Your task to perform on an android device: Add "usb-b" to the cart on costco.com, then select checkout. Image 0: 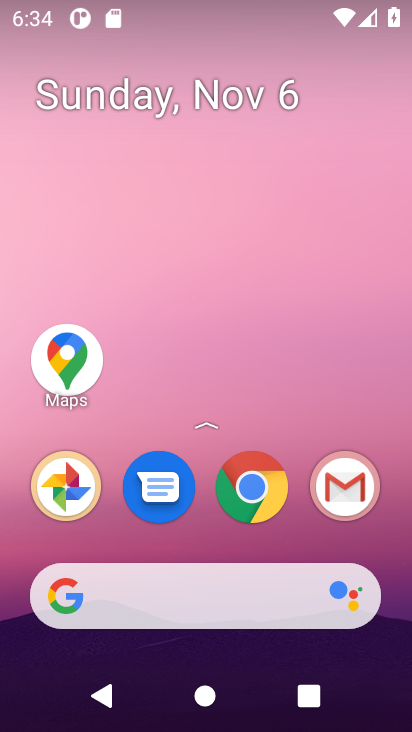
Step 0: click (260, 488)
Your task to perform on an android device: Add "usb-b" to the cart on costco.com, then select checkout. Image 1: 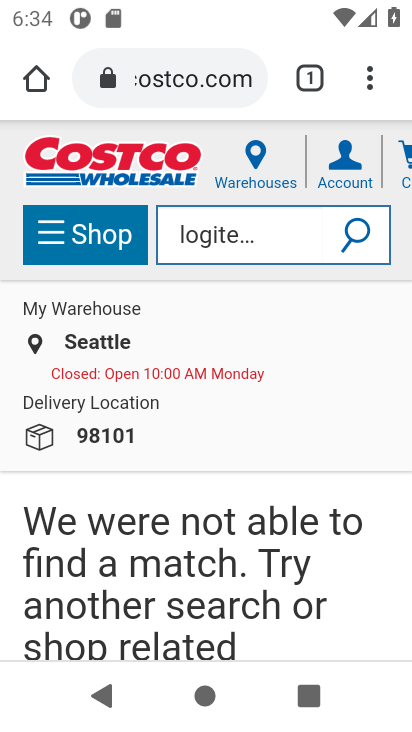
Step 1: click (226, 231)
Your task to perform on an android device: Add "usb-b" to the cart on costco.com, then select checkout. Image 2: 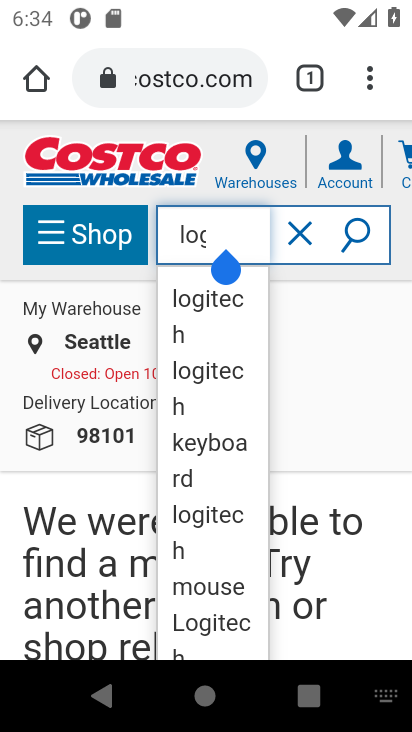
Step 2: click (288, 237)
Your task to perform on an android device: Add "usb-b" to the cart on costco.com, then select checkout. Image 3: 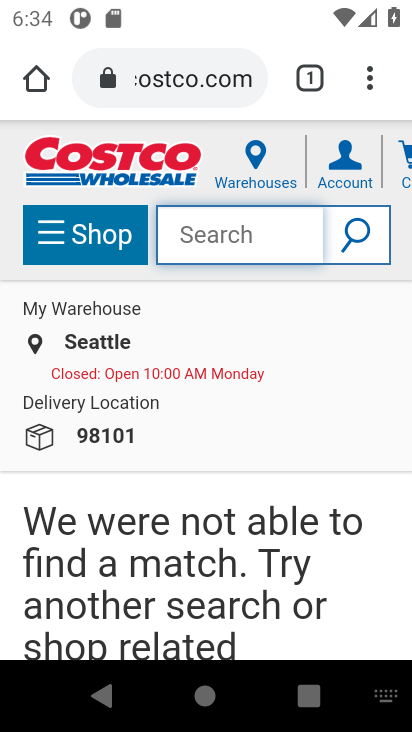
Step 3: type "usb-b"
Your task to perform on an android device: Add "usb-b" to the cart on costco.com, then select checkout. Image 4: 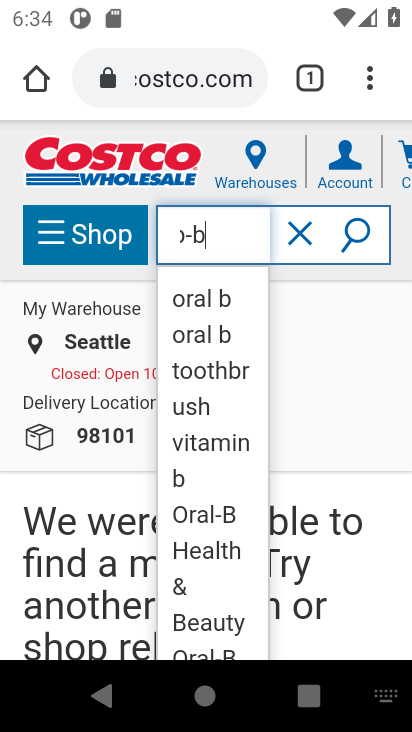
Step 4: click (341, 228)
Your task to perform on an android device: Add "usb-b" to the cart on costco.com, then select checkout. Image 5: 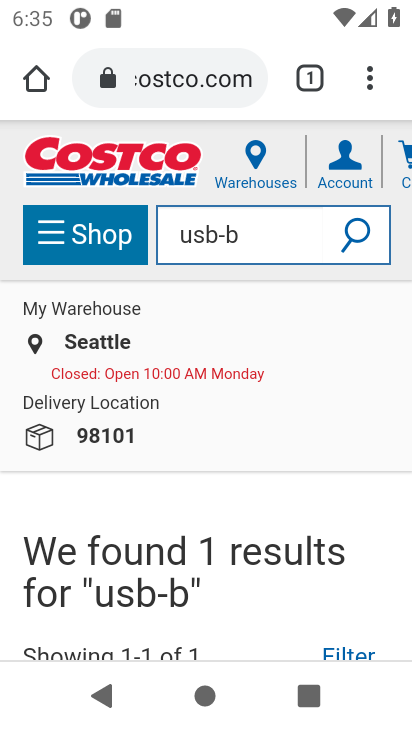
Step 5: drag from (302, 616) to (301, 287)
Your task to perform on an android device: Add "usb-b" to the cart on costco.com, then select checkout. Image 6: 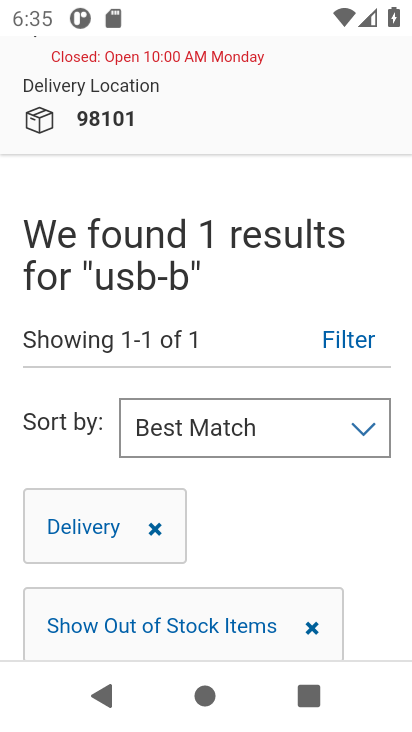
Step 6: click (278, 155)
Your task to perform on an android device: Add "usb-b" to the cart on costco.com, then select checkout. Image 7: 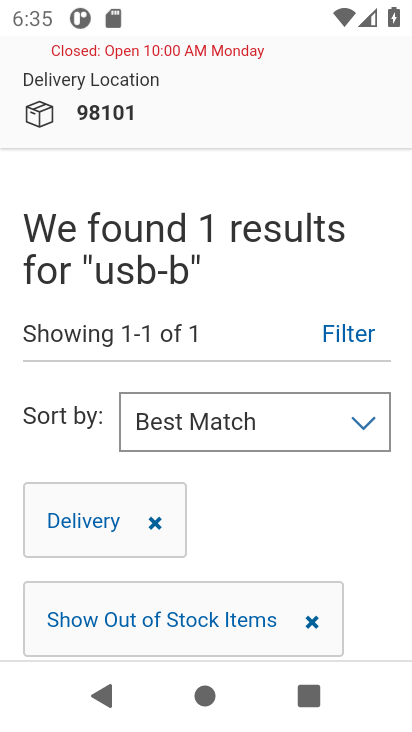
Step 7: task complete